Your task to perform on an android device: Go to Yahoo.com Image 0: 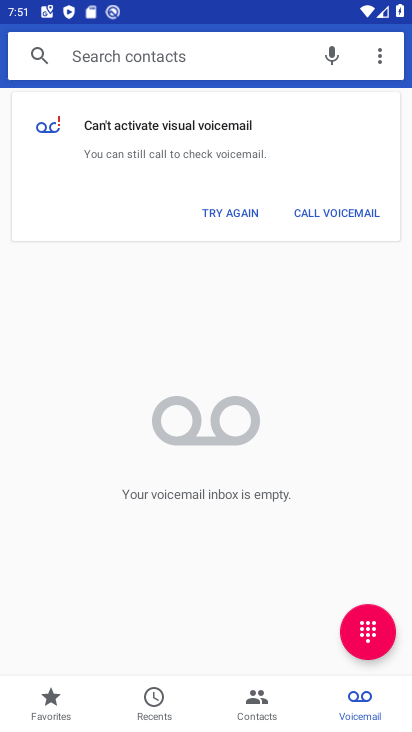
Step 0: press home button
Your task to perform on an android device: Go to Yahoo.com Image 1: 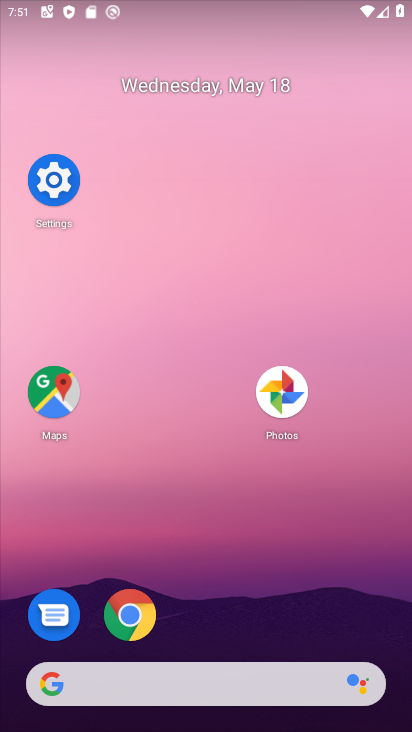
Step 1: click (104, 622)
Your task to perform on an android device: Go to Yahoo.com Image 2: 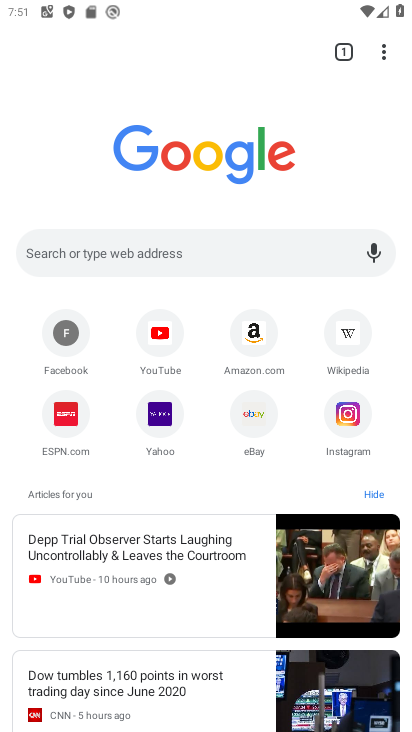
Step 2: click (168, 414)
Your task to perform on an android device: Go to Yahoo.com Image 3: 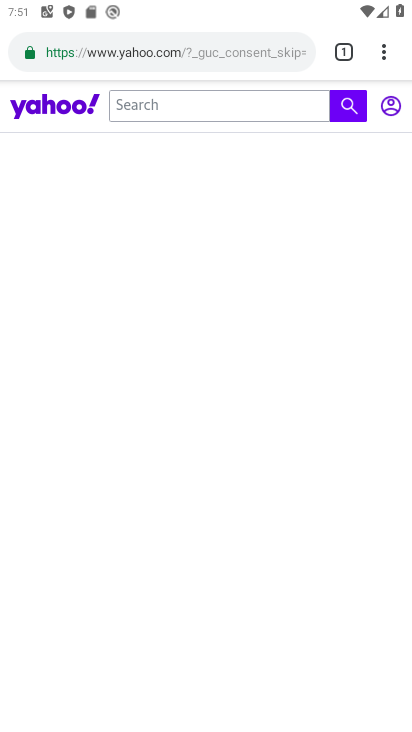
Step 3: task complete